Your task to perform on an android device: delete location history Image 0: 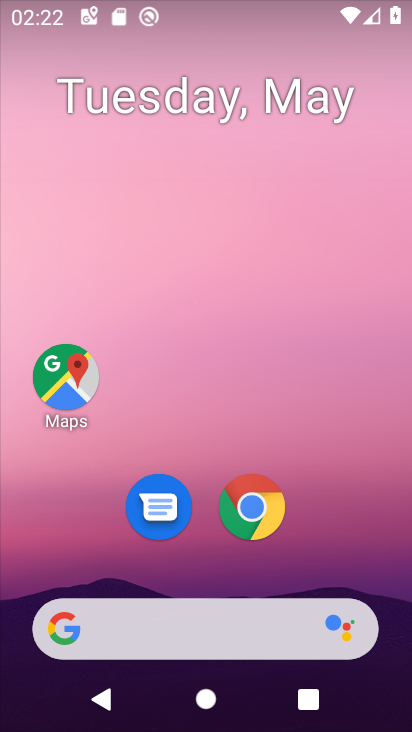
Step 0: drag from (207, 568) to (211, 237)
Your task to perform on an android device: delete location history Image 1: 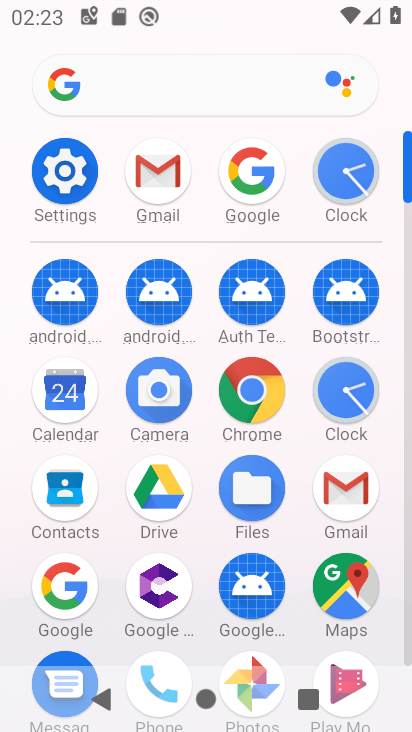
Step 1: click (340, 576)
Your task to perform on an android device: delete location history Image 2: 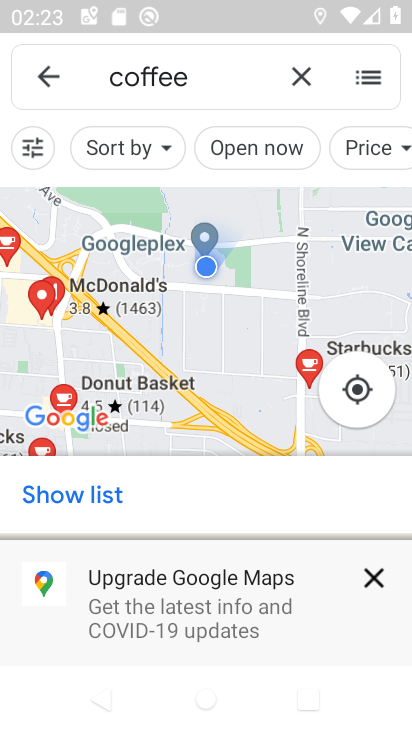
Step 2: click (299, 69)
Your task to perform on an android device: delete location history Image 3: 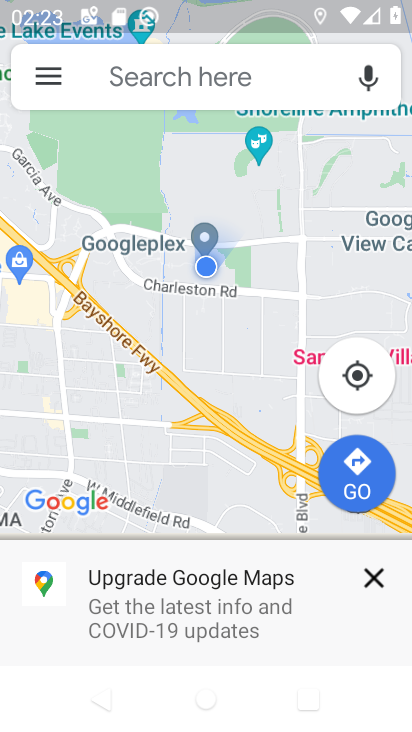
Step 3: click (44, 59)
Your task to perform on an android device: delete location history Image 4: 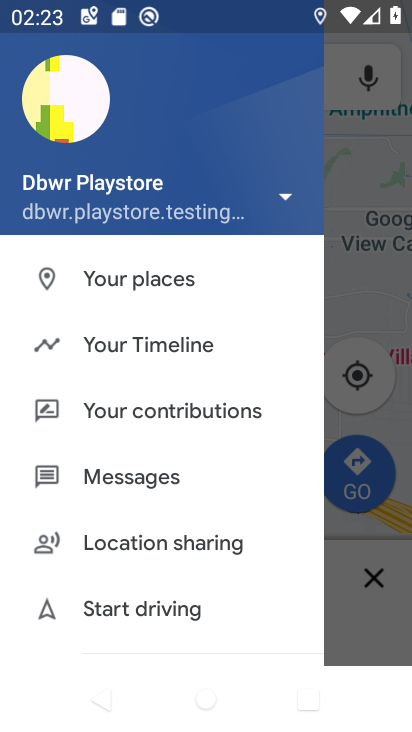
Step 4: drag from (161, 549) to (182, 320)
Your task to perform on an android device: delete location history Image 5: 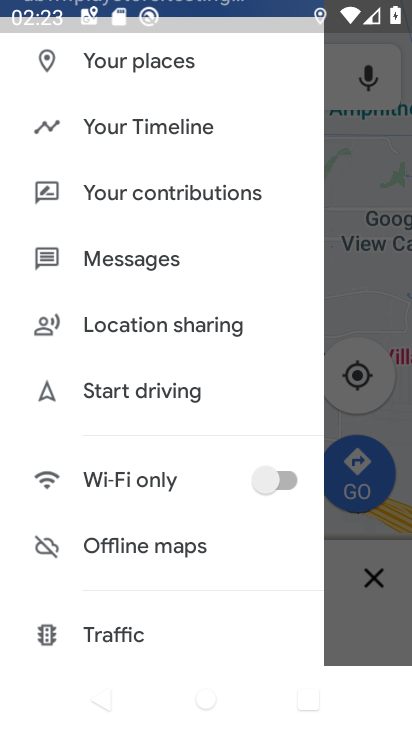
Step 5: click (144, 128)
Your task to perform on an android device: delete location history Image 6: 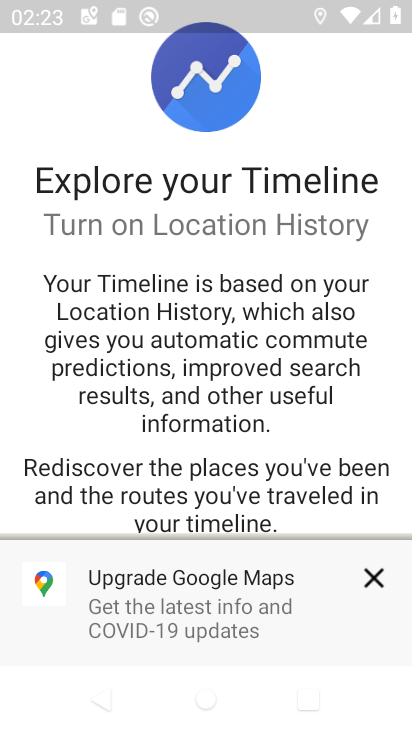
Step 6: click (370, 576)
Your task to perform on an android device: delete location history Image 7: 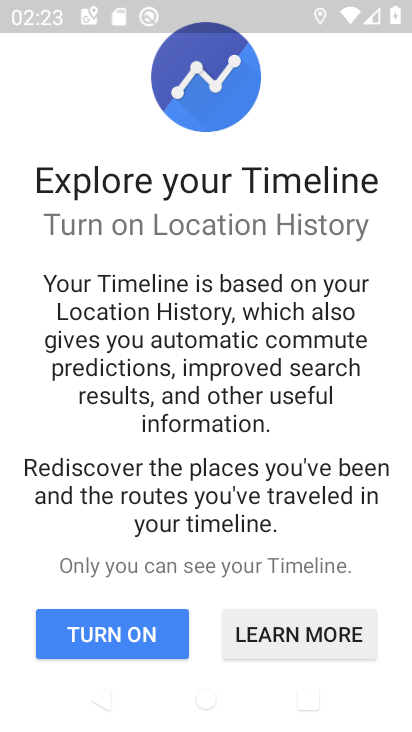
Step 7: drag from (322, 583) to (324, 319)
Your task to perform on an android device: delete location history Image 8: 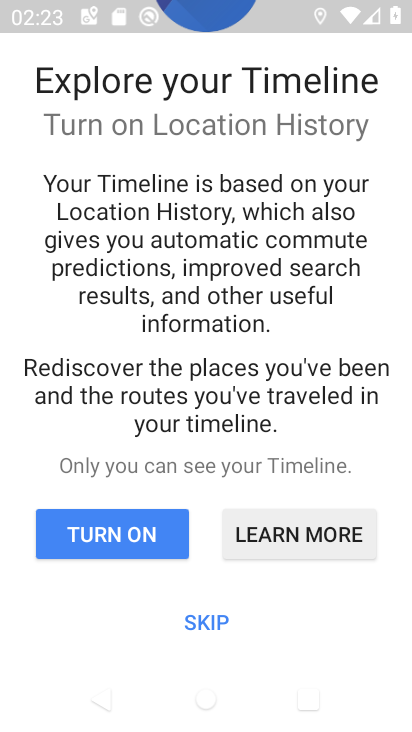
Step 8: click (215, 615)
Your task to perform on an android device: delete location history Image 9: 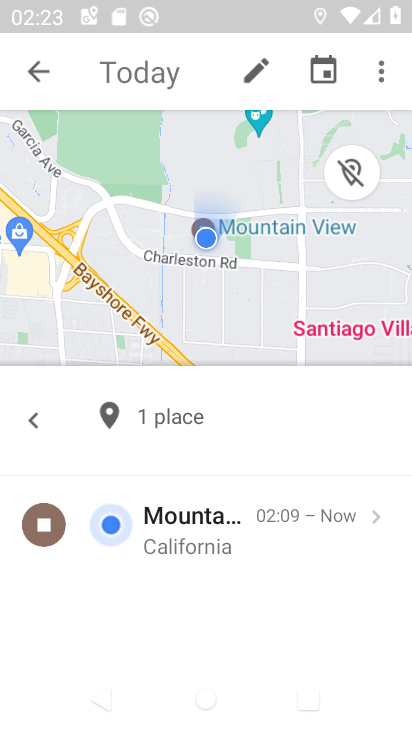
Step 9: click (381, 64)
Your task to perform on an android device: delete location history Image 10: 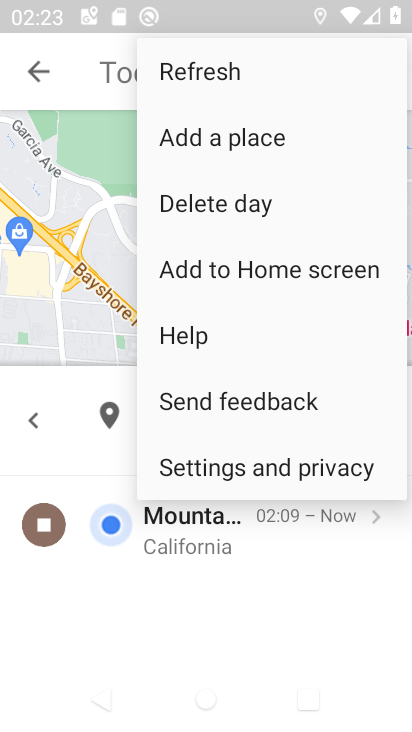
Step 10: click (269, 457)
Your task to perform on an android device: delete location history Image 11: 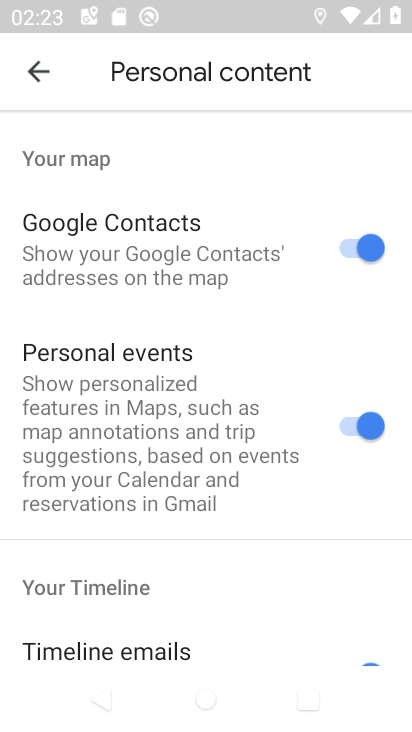
Step 11: drag from (235, 545) to (206, 269)
Your task to perform on an android device: delete location history Image 12: 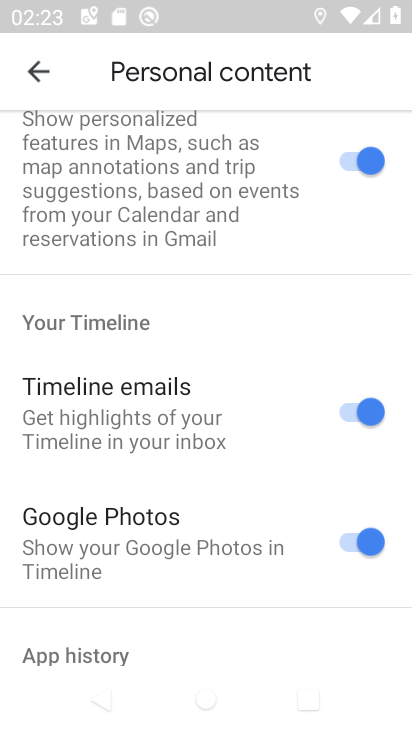
Step 12: drag from (185, 589) to (186, 315)
Your task to perform on an android device: delete location history Image 13: 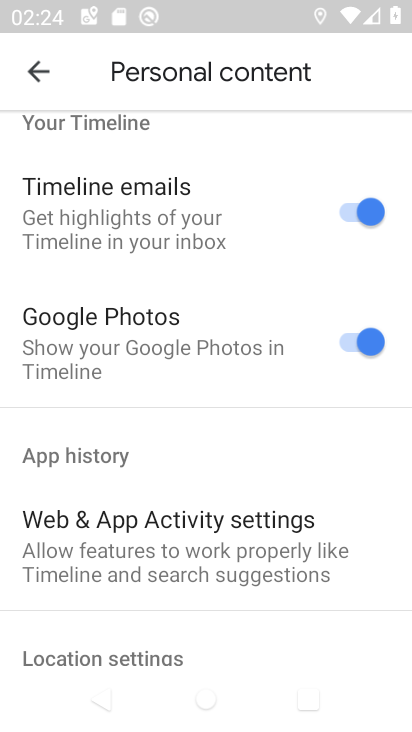
Step 13: drag from (247, 645) to (237, 425)
Your task to perform on an android device: delete location history Image 14: 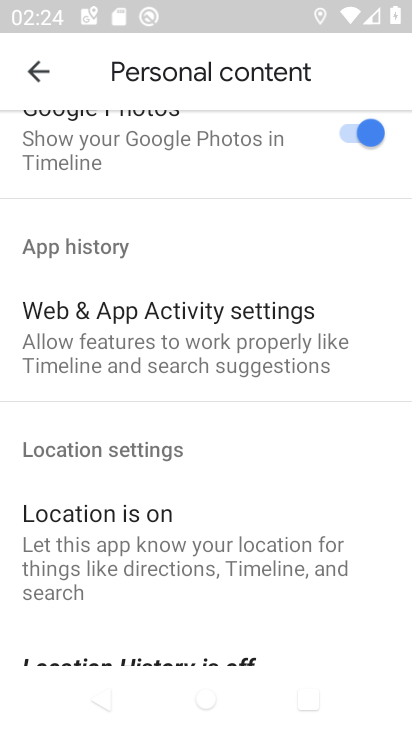
Step 14: drag from (242, 492) to (237, 301)
Your task to perform on an android device: delete location history Image 15: 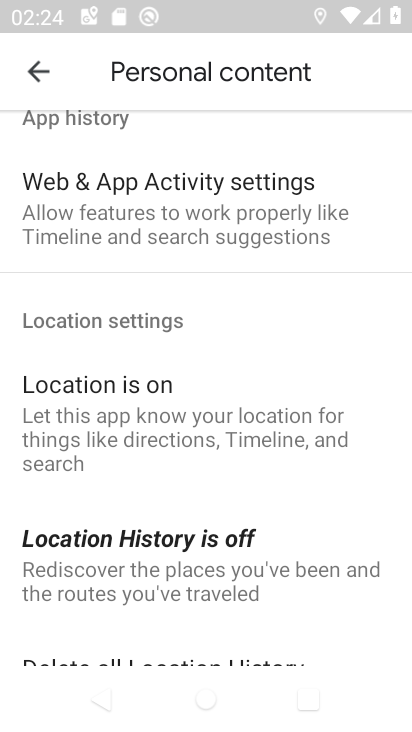
Step 15: drag from (253, 475) to (256, 237)
Your task to perform on an android device: delete location history Image 16: 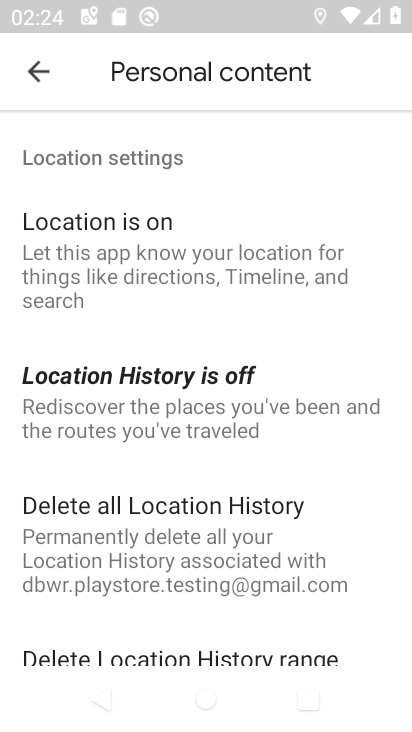
Step 16: click (231, 493)
Your task to perform on an android device: delete location history Image 17: 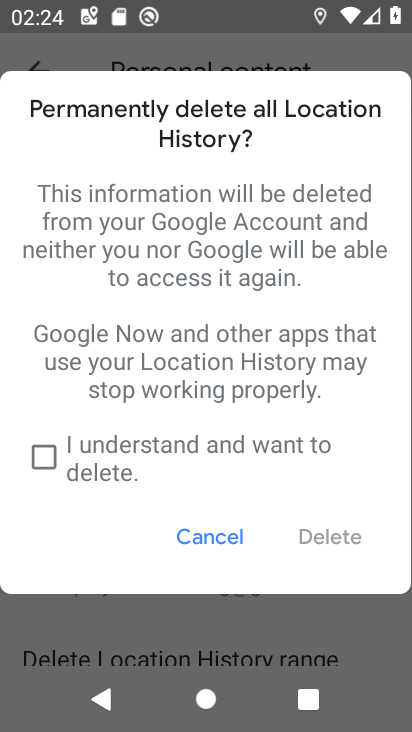
Step 17: click (158, 451)
Your task to perform on an android device: delete location history Image 18: 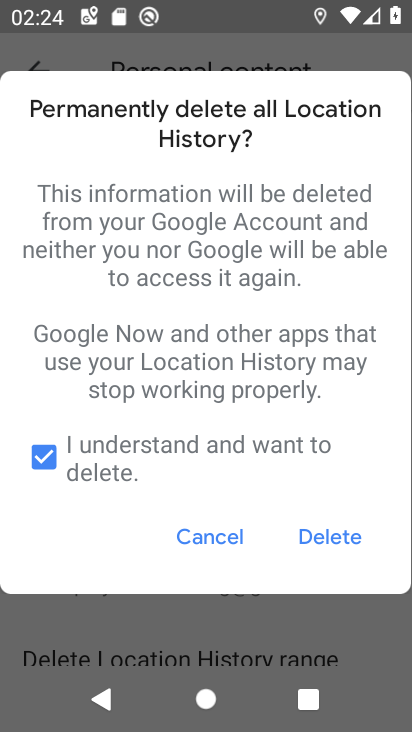
Step 18: click (328, 536)
Your task to perform on an android device: delete location history Image 19: 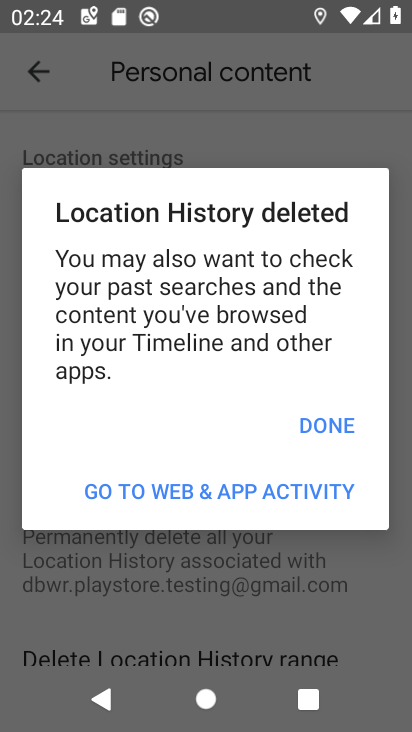
Step 19: task complete